Your task to perform on an android device: What's on my calendar tomorrow? Image 0: 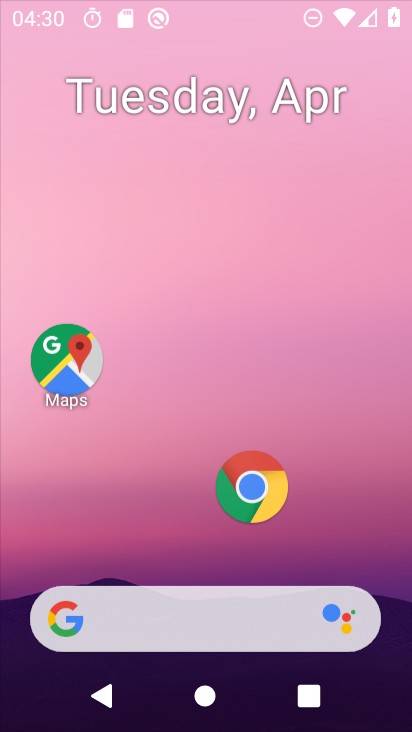
Step 0: drag from (178, 266) to (178, 505)
Your task to perform on an android device: What's on my calendar tomorrow? Image 1: 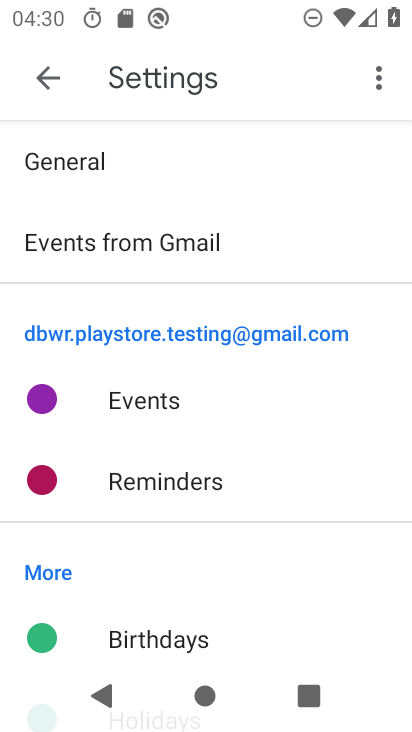
Step 1: drag from (105, 15) to (173, 461)
Your task to perform on an android device: What's on my calendar tomorrow? Image 2: 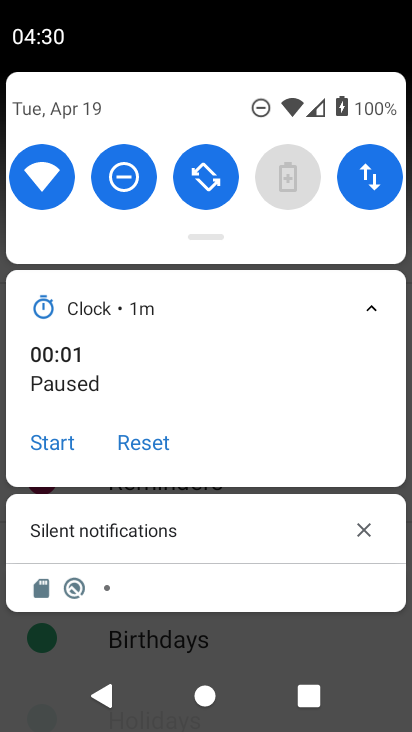
Step 2: press home button
Your task to perform on an android device: What's on my calendar tomorrow? Image 3: 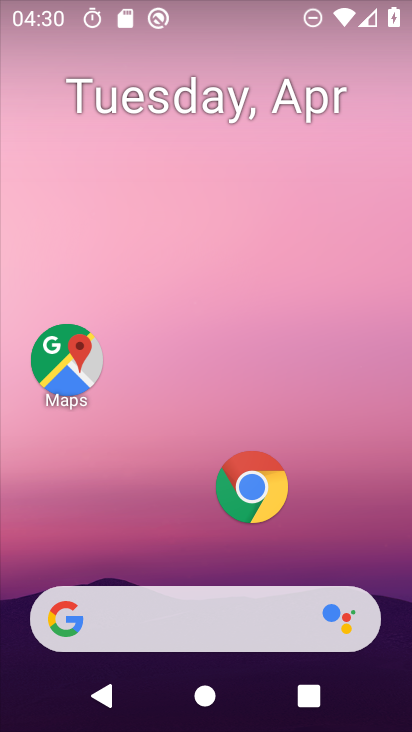
Step 3: drag from (112, 536) to (263, 6)
Your task to perform on an android device: What's on my calendar tomorrow? Image 4: 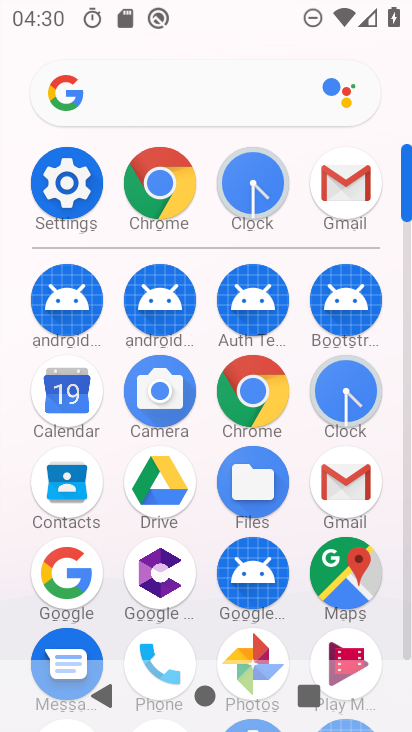
Step 4: click (78, 397)
Your task to perform on an android device: What's on my calendar tomorrow? Image 5: 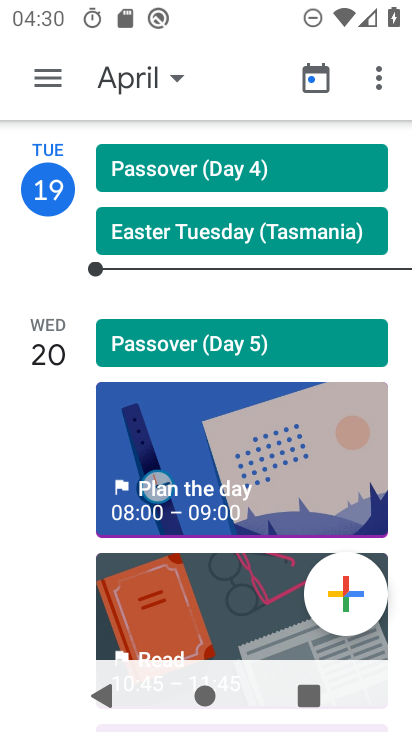
Step 5: drag from (219, 632) to (321, 224)
Your task to perform on an android device: What's on my calendar tomorrow? Image 6: 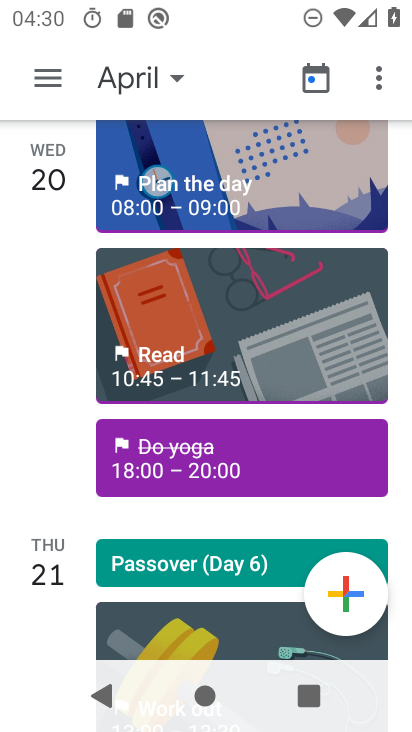
Step 6: click (225, 454)
Your task to perform on an android device: What's on my calendar tomorrow? Image 7: 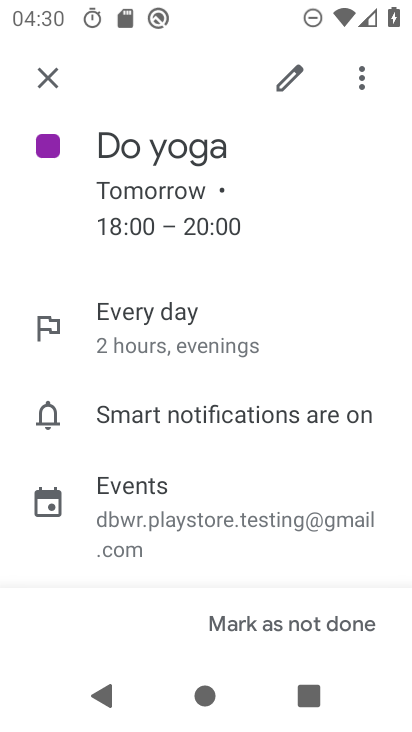
Step 7: task complete